Your task to perform on an android device: toggle priority inbox in the gmail app Image 0: 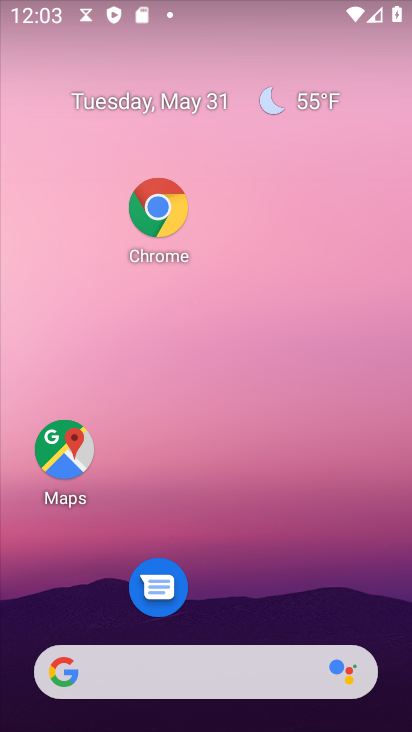
Step 0: drag from (264, 558) to (268, 214)
Your task to perform on an android device: toggle priority inbox in the gmail app Image 1: 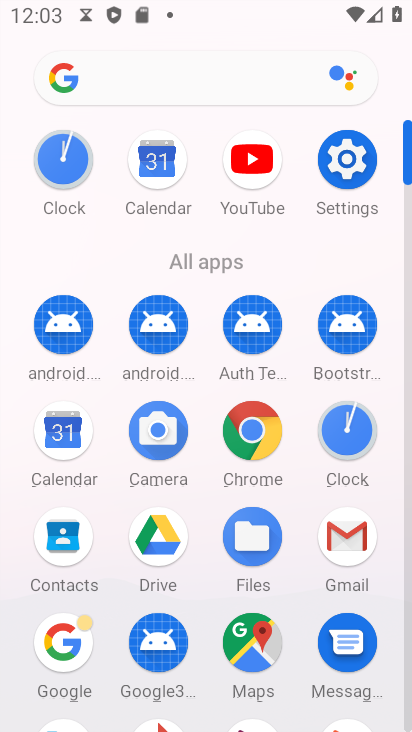
Step 1: click (345, 560)
Your task to perform on an android device: toggle priority inbox in the gmail app Image 2: 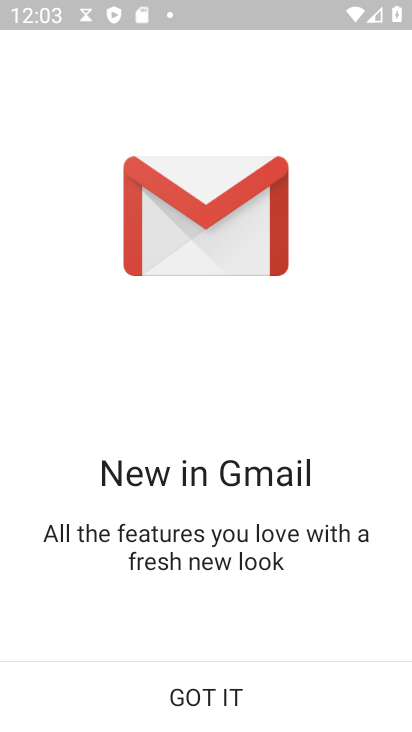
Step 2: click (222, 693)
Your task to perform on an android device: toggle priority inbox in the gmail app Image 3: 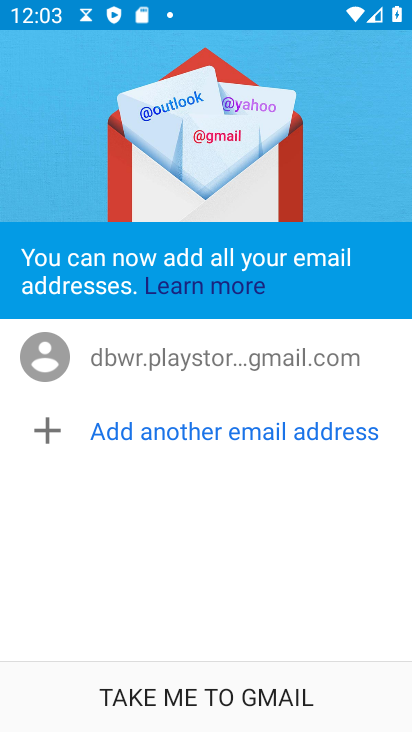
Step 3: click (222, 693)
Your task to perform on an android device: toggle priority inbox in the gmail app Image 4: 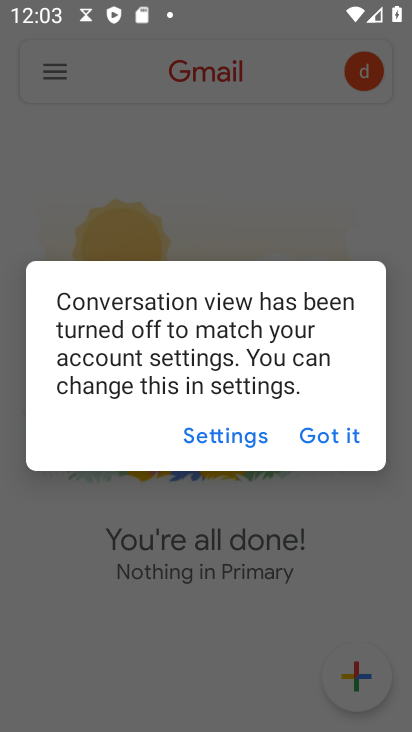
Step 4: click (318, 436)
Your task to perform on an android device: toggle priority inbox in the gmail app Image 5: 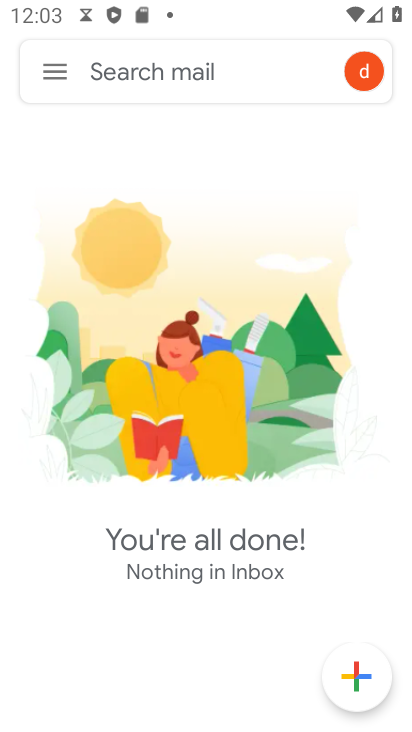
Step 5: click (52, 72)
Your task to perform on an android device: toggle priority inbox in the gmail app Image 6: 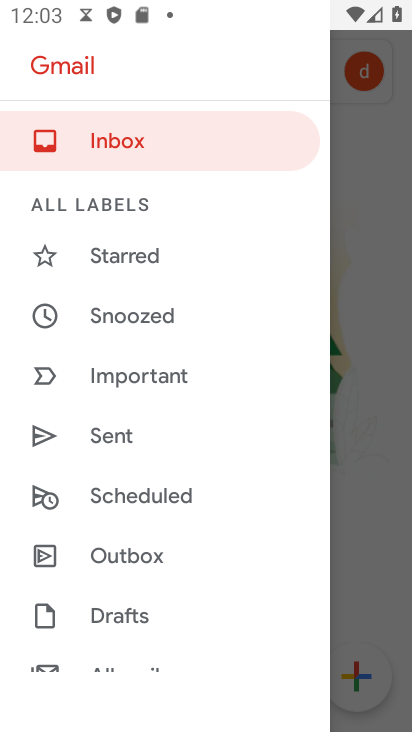
Step 6: drag from (216, 654) to (266, 167)
Your task to perform on an android device: toggle priority inbox in the gmail app Image 7: 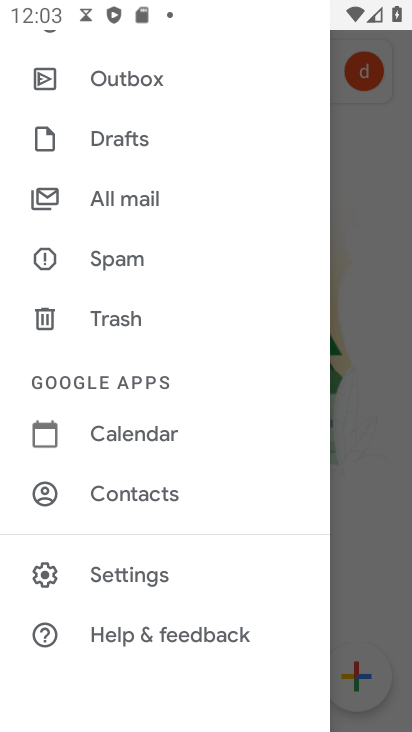
Step 7: click (91, 568)
Your task to perform on an android device: toggle priority inbox in the gmail app Image 8: 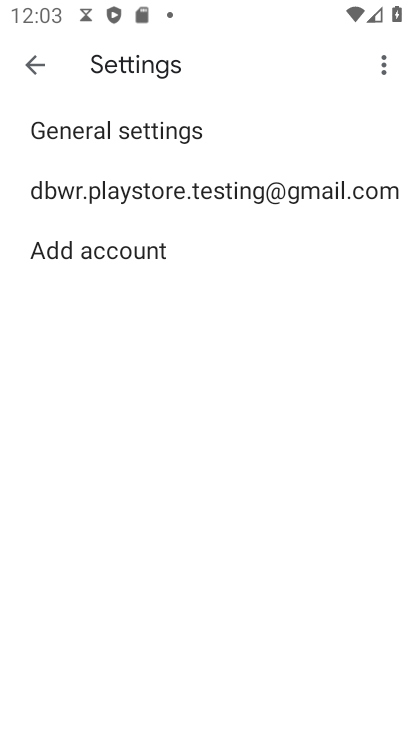
Step 8: click (183, 187)
Your task to perform on an android device: toggle priority inbox in the gmail app Image 9: 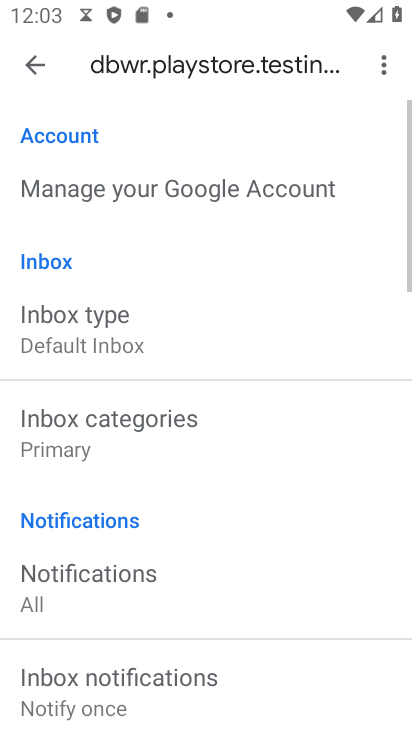
Step 9: click (93, 319)
Your task to perform on an android device: toggle priority inbox in the gmail app Image 10: 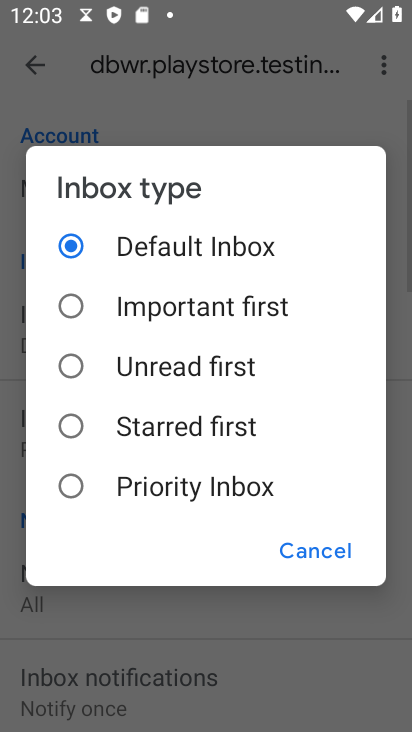
Step 10: click (127, 489)
Your task to perform on an android device: toggle priority inbox in the gmail app Image 11: 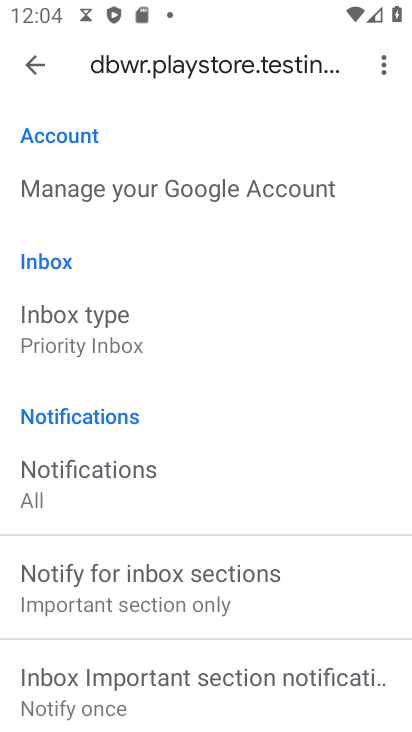
Step 11: task complete